Your task to perform on an android device: What's the weather going to be this weekend? Image 0: 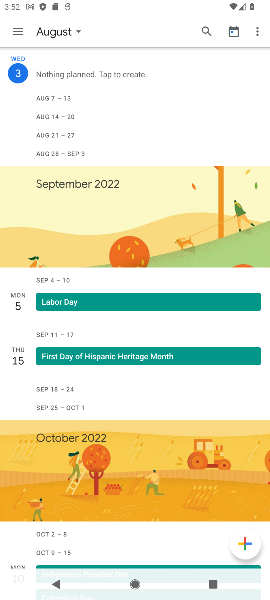
Step 0: press home button
Your task to perform on an android device: What's the weather going to be this weekend? Image 1: 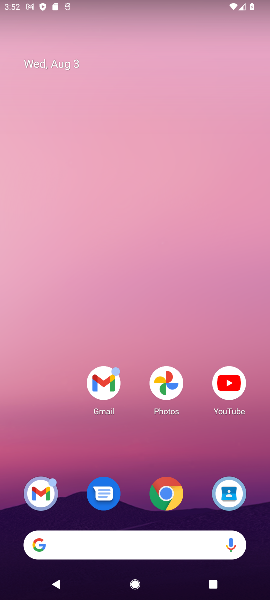
Step 1: click (269, 454)
Your task to perform on an android device: What's the weather going to be this weekend? Image 2: 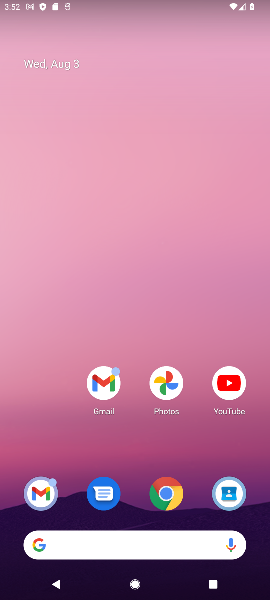
Step 2: click (118, 547)
Your task to perform on an android device: What's the weather going to be this weekend? Image 3: 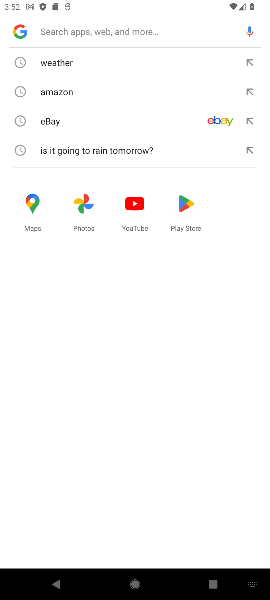
Step 3: click (72, 63)
Your task to perform on an android device: What's the weather going to be this weekend? Image 4: 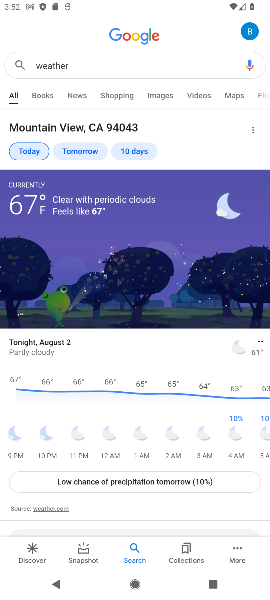
Step 4: click (137, 152)
Your task to perform on an android device: What's the weather going to be this weekend? Image 5: 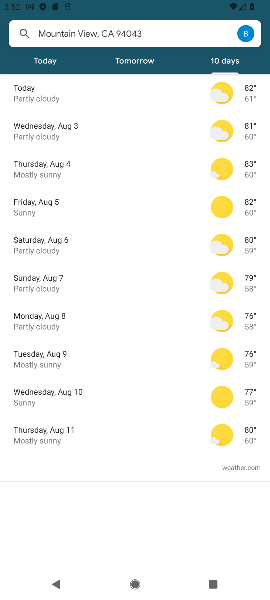
Step 5: click (63, 246)
Your task to perform on an android device: What's the weather going to be this weekend? Image 6: 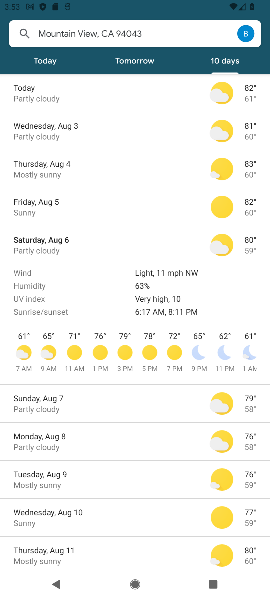
Step 6: task complete